Your task to perform on an android device: open app "Gmail" (install if not already installed) Image 0: 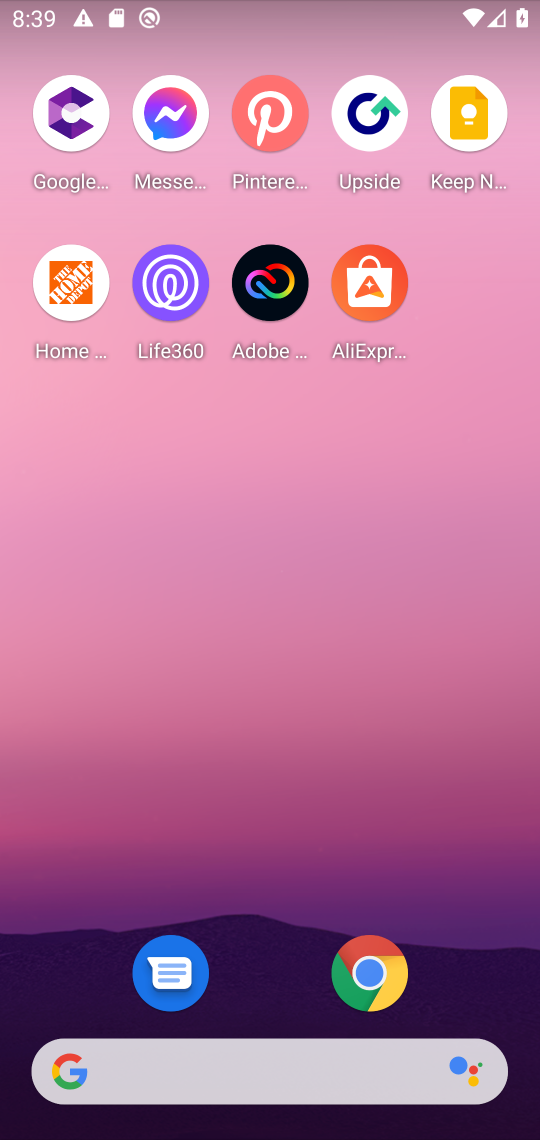
Step 0: drag from (335, 1022) to (494, 314)
Your task to perform on an android device: open app "Gmail" (install if not already installed) Image 1: 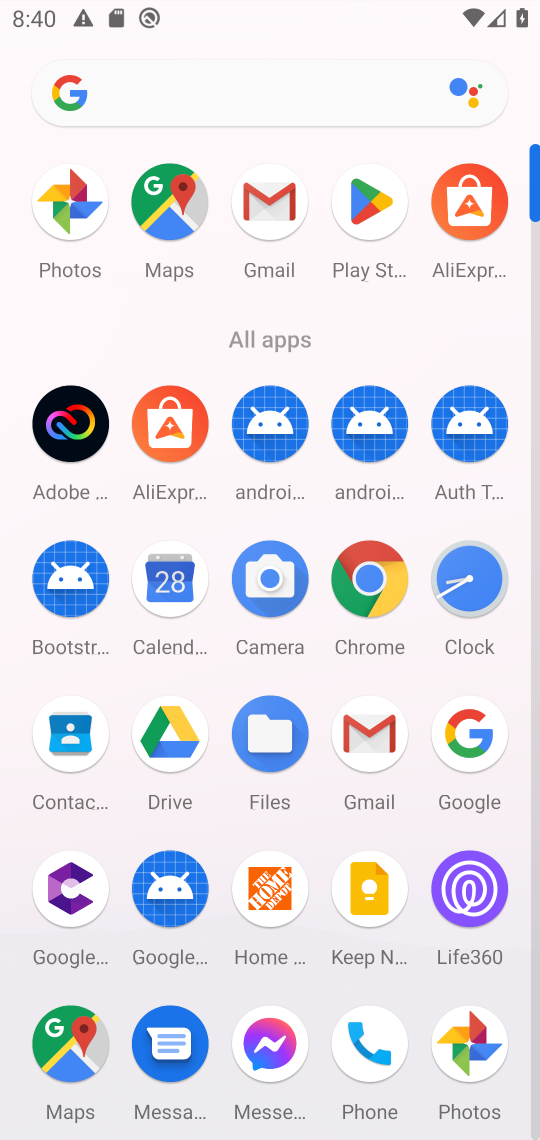
Step 1: click (264, 217)
Your task to perform on an android device: open app "Gmail" (install if not already installed) Image 2: 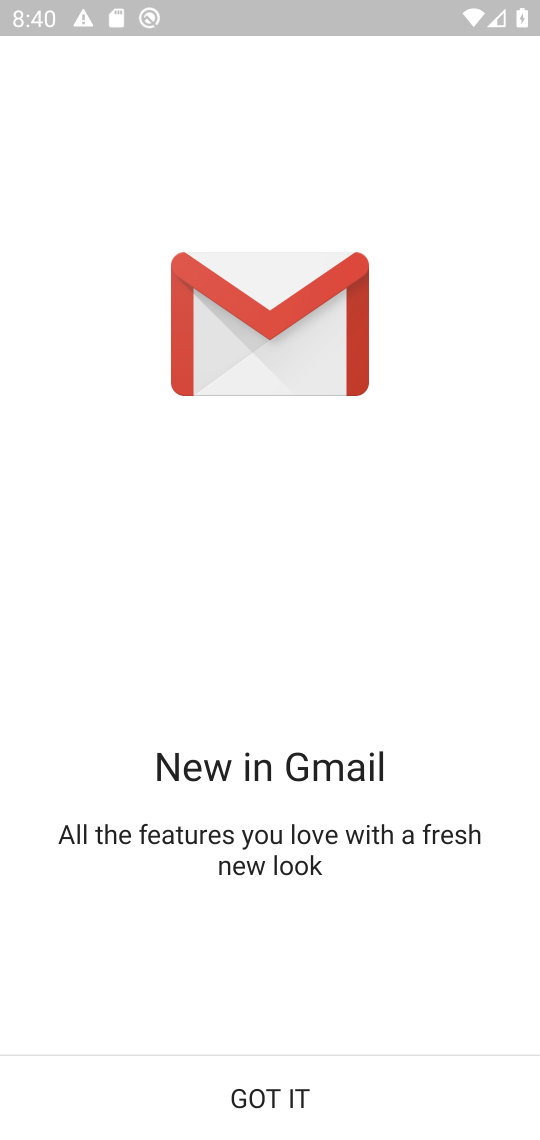
Step 2: click (388, 1122)
Your task to perform on an android device: open app "Gmail" (install if not already installed) Image 3: 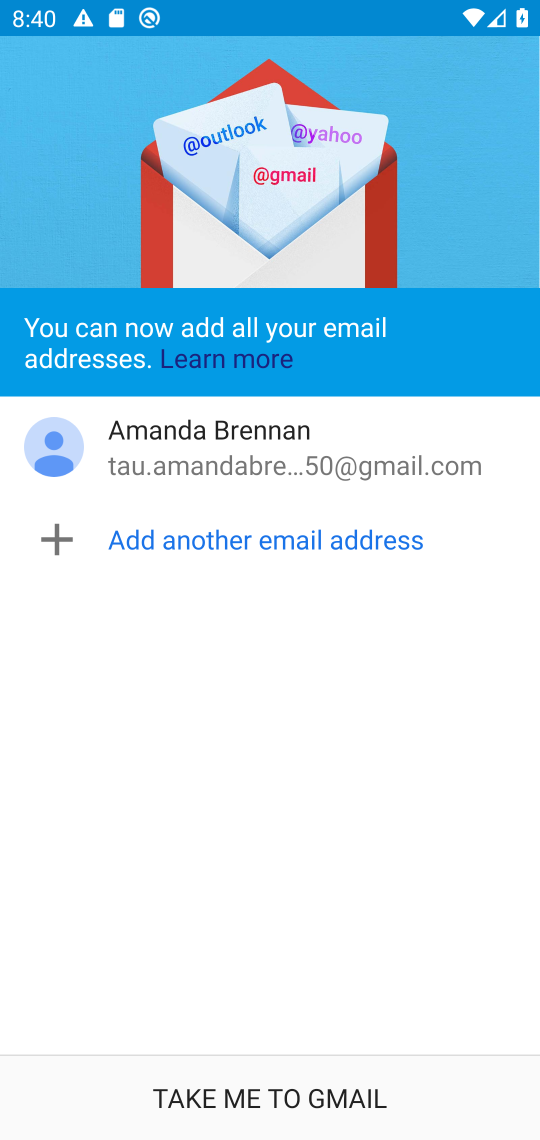
Step 3: click (457, 1128)
Your task to perform on an android device: open app "Gmail" (install if not already installed) Image 4: 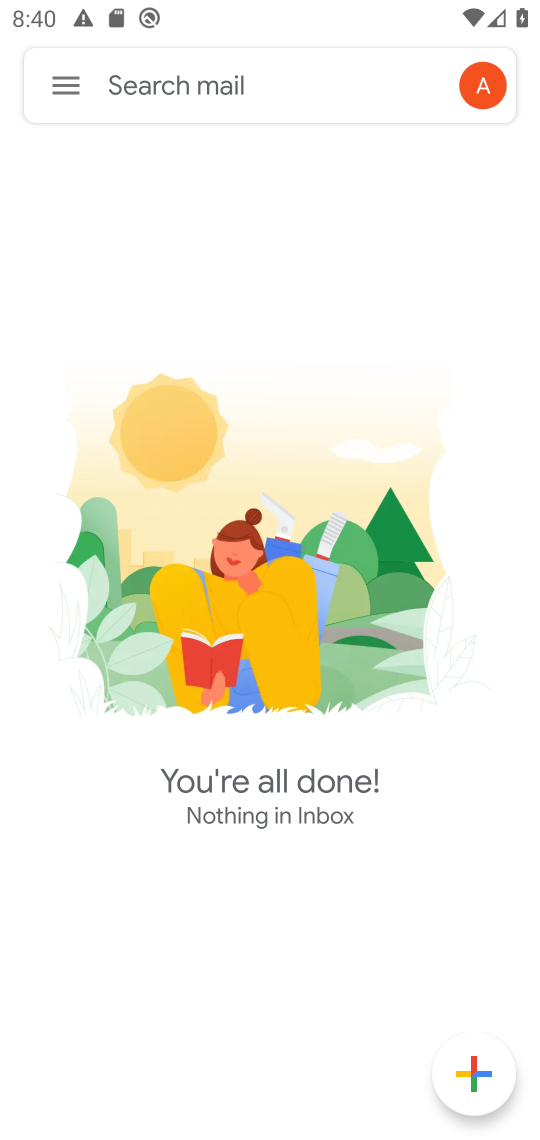
Step 4: task complete